Your task to perform on an android device: check android version Image 0: 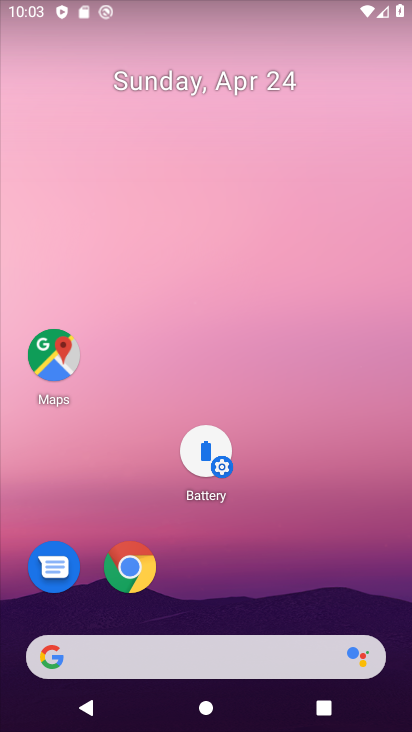
Step 0: drag from (181, 421) to (266, 307)
Your task to perform on an android device: check android version Image 1: 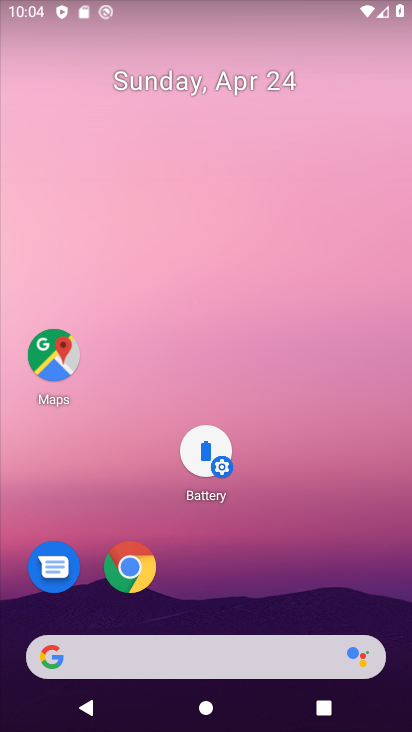
Step 1: drag from (31, 615) to (271, 196)
Your task to perform on an android device: check android version Image 2: 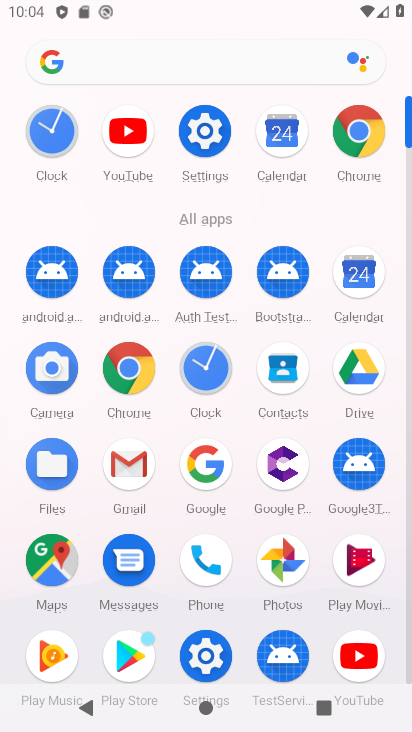
Step 2: click (225, 117)
Your task to perform on an android device: check android version Image 3: 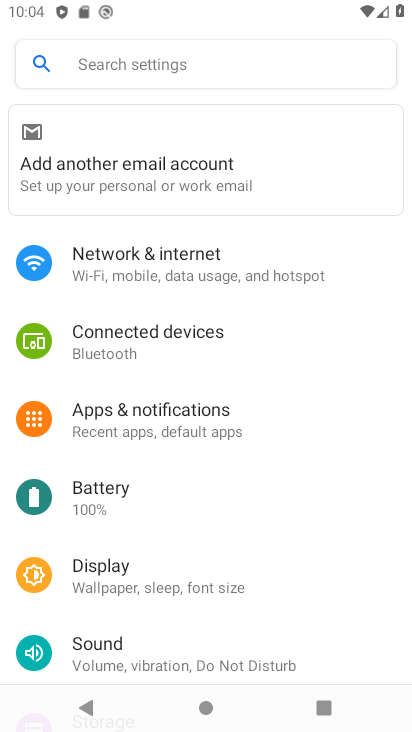
Step 3: drag from (162, 639) to (314, 306)
Your task to perform on an android device: check android version Image 4: 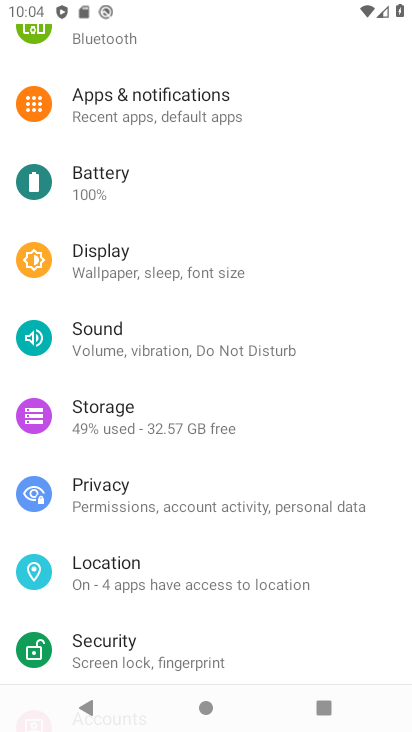
Step 4: drag from (187, 645) to (319, 305)
Your task to perform on an android device: check android version Image 5: 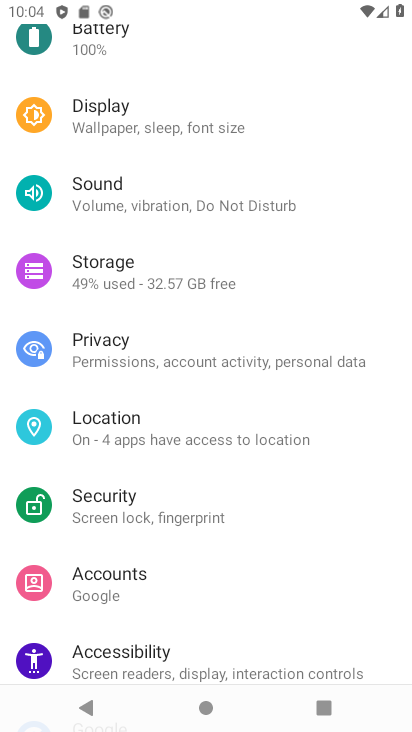
Step 5: drag from (149, 653) to (313, 269)
Your task to perform on an android device: check android version Image 6: 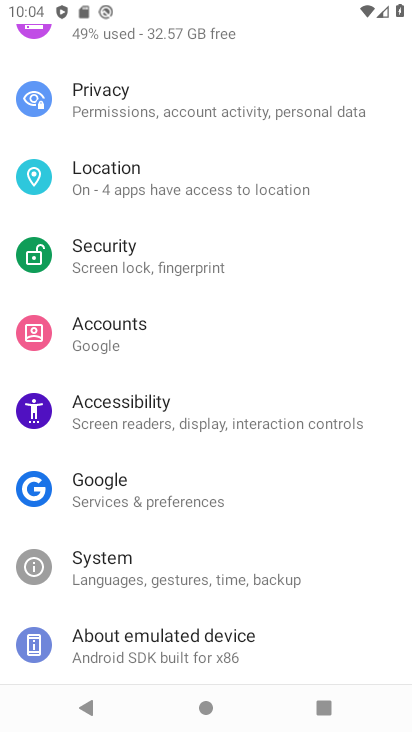
Step 6: drag from (199, 626) to (321, 280)
Your task to perform on an android device: check android version Image 7: 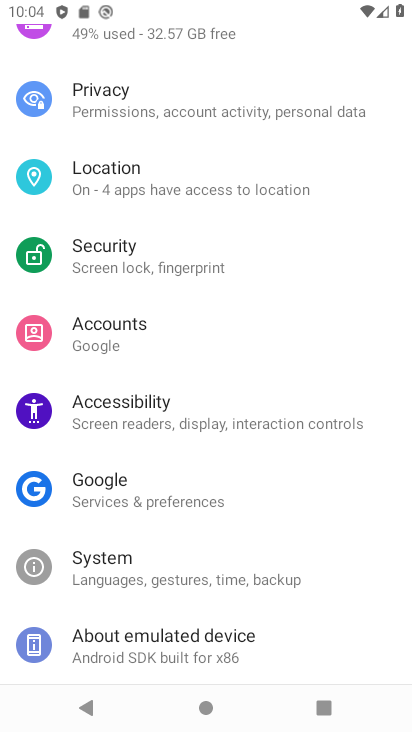
Step 7: click (140, 642)
Your task to perform on an android device: check android version Image 8: 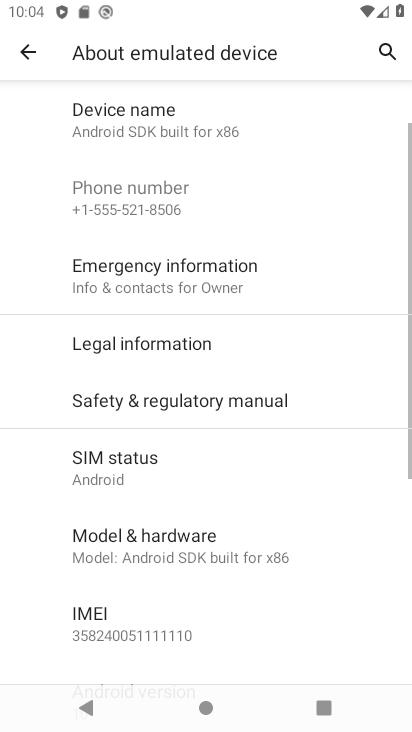
Step 8: drag from (120, 621) to (235, 218)
Your task to perform on an android device: check android version Image 9: 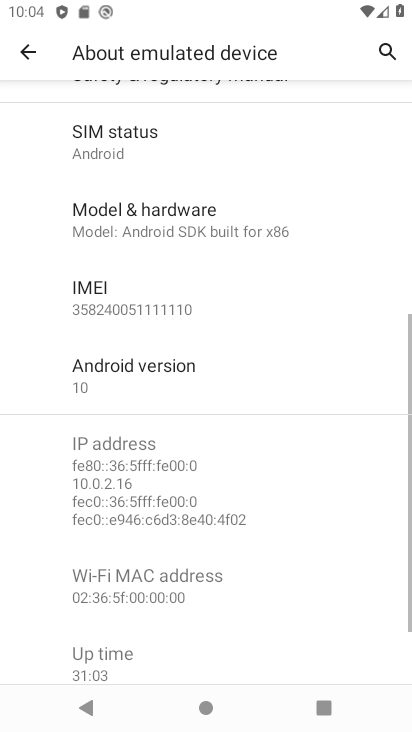
Step 9: drag from (120, 629) to (209, 323)
Your task to perform on an android device: check android version Image 10: 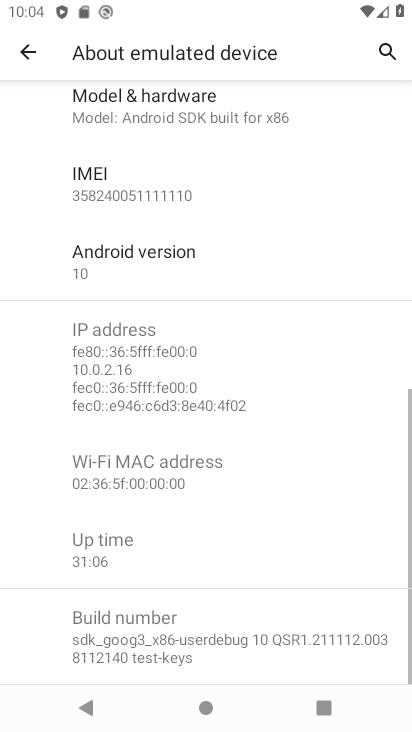
Step 10: click (190, 247)
Your task to perform on an android device: check android version Image 11: 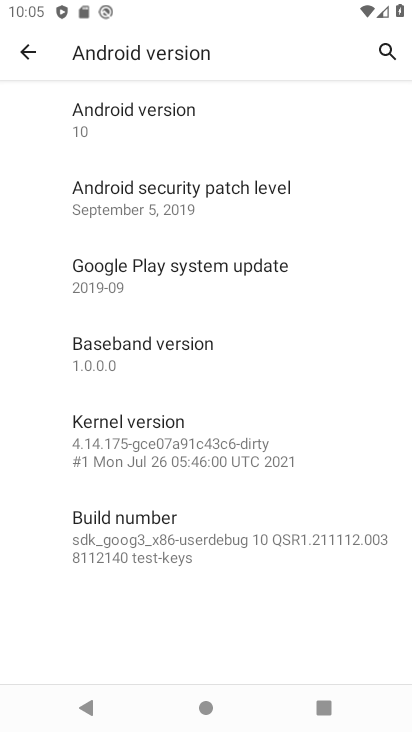
Step 11: task complete